Your task to perform on an android device: Go to location settings Image 0: 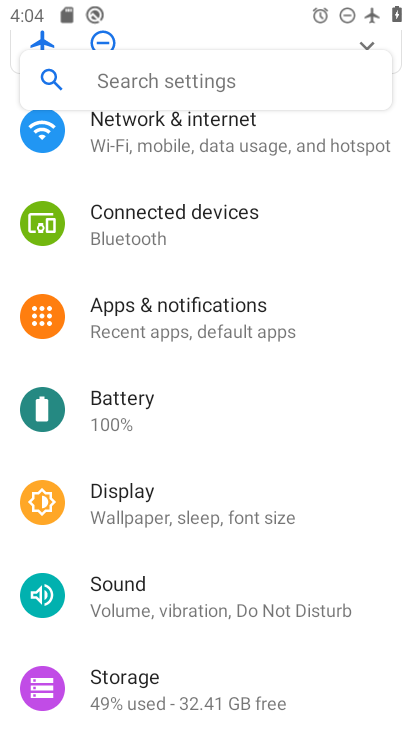
Step 0: drag from (176, 645) to (170, 252)
Your task to perform on an android device: Go to location settings Image 1: 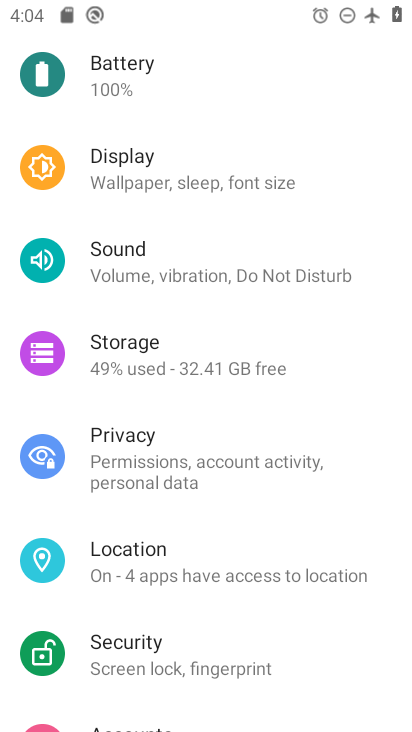
Step 1: click (124, 563)
Your task to perform on an android device: Go to location settings Image 2: 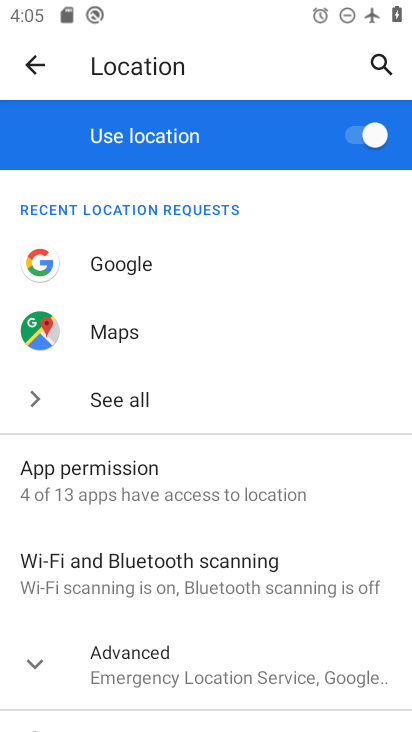
Step 2: task complete